Your task to perform on an android device: visit the assistant section in the google photos Image 0: 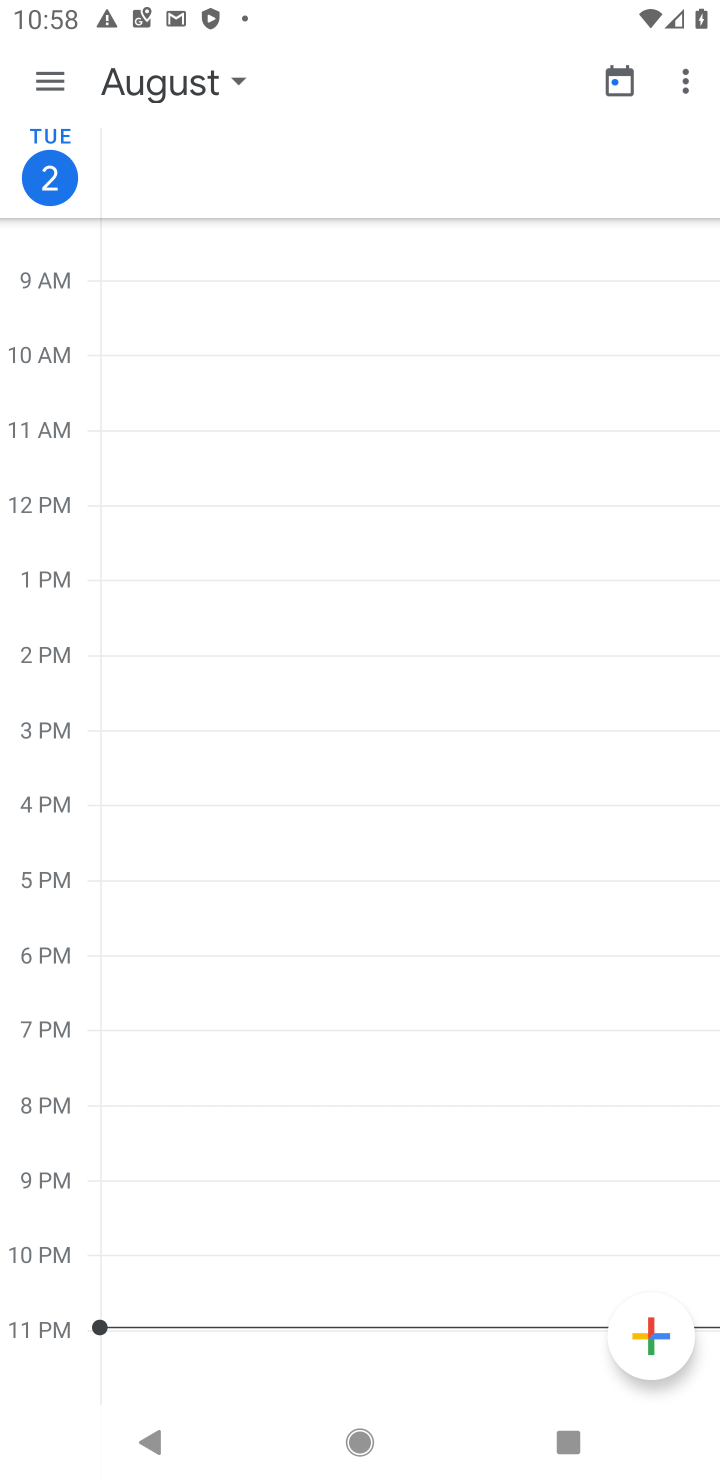
Step 0: drag from (300, 1053) to (548, 547)
Your task to perform on an android device: visit the assistant section in the google photos Image 1: 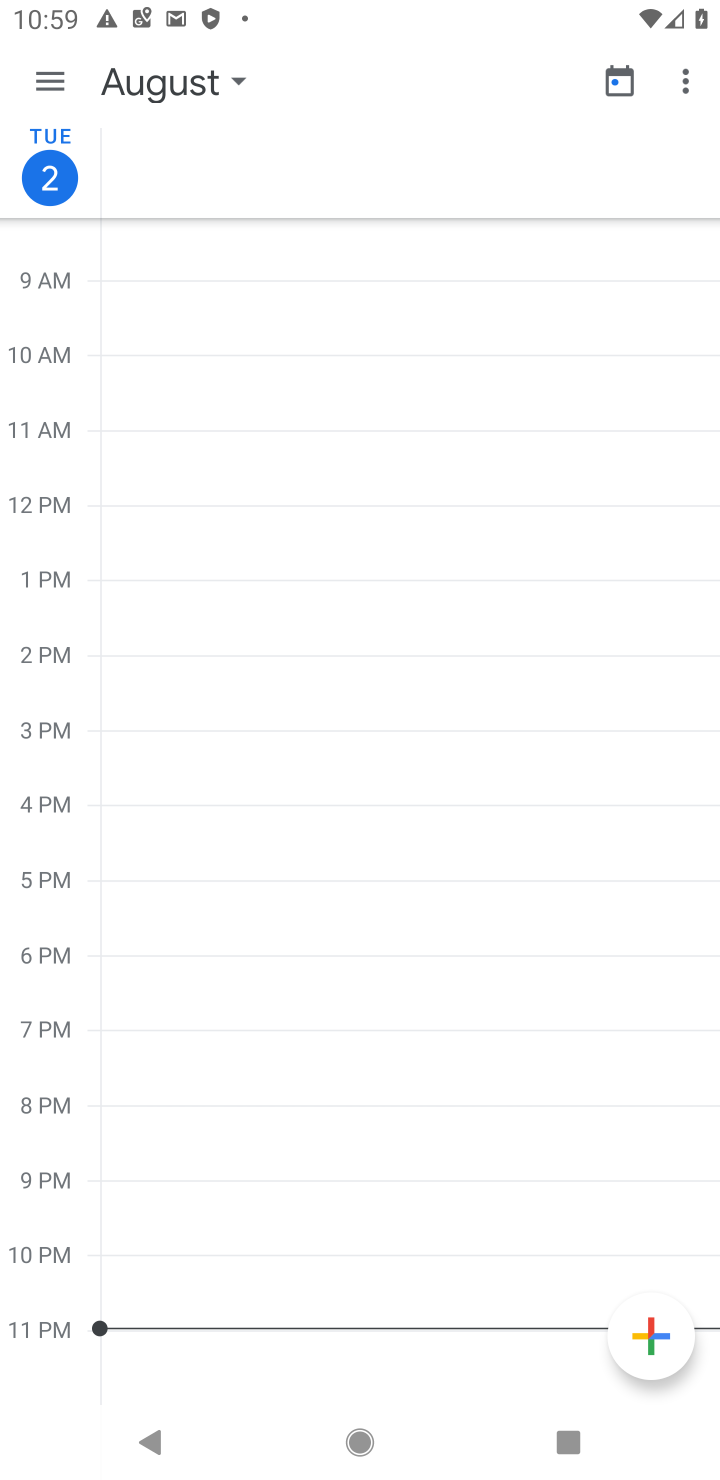
Step 1: press home button
Your task to perform on an android device: visit the assistant section in the google photos Image 2: 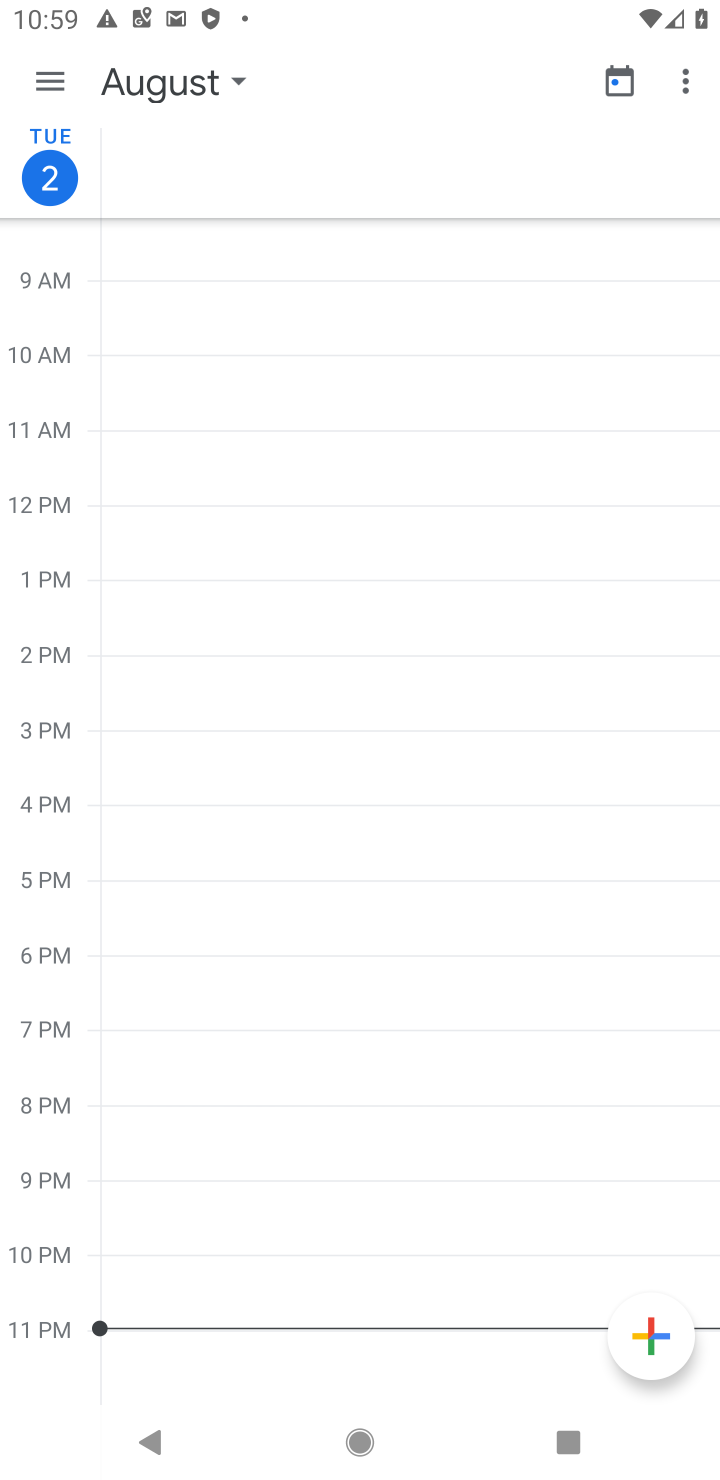
Step 2: press home button
Your task to perform on an android device: visit the assistant section in the google photos Image 3: 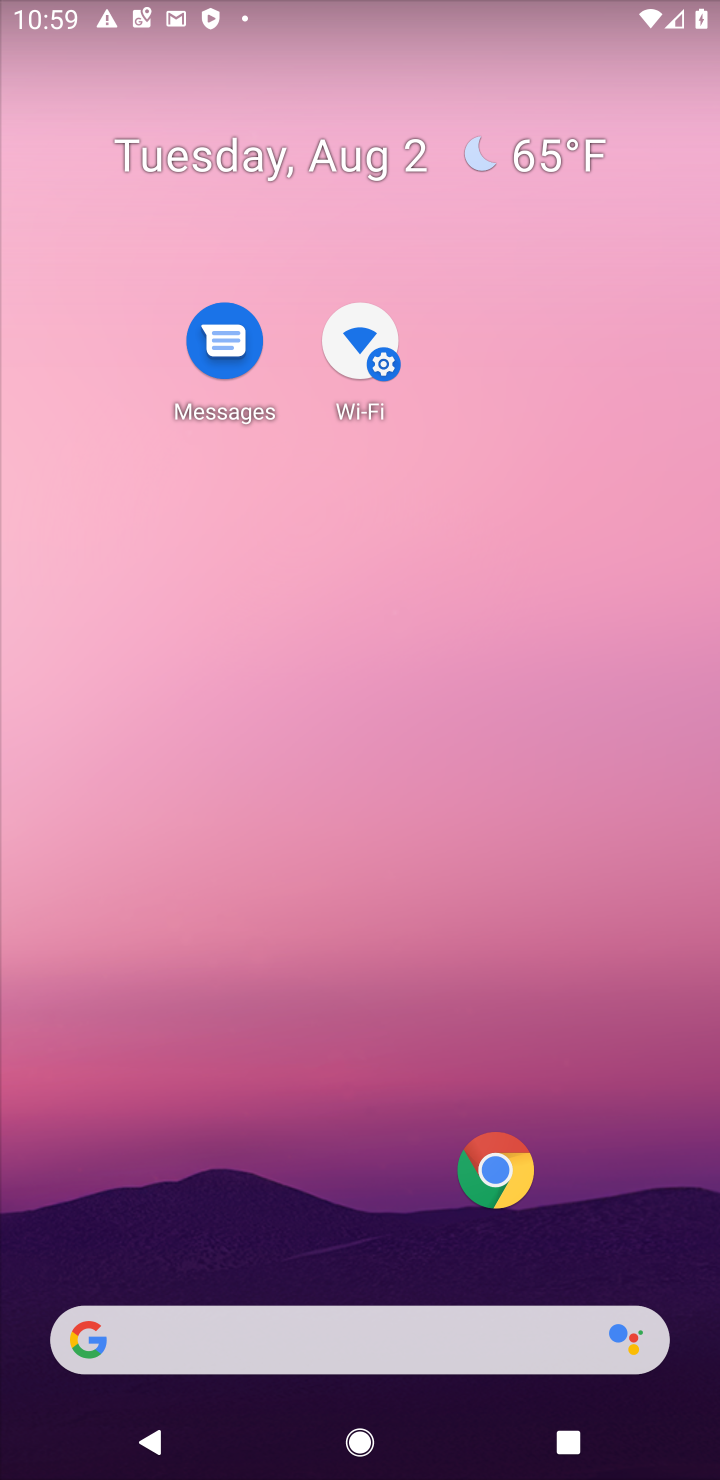
Step 3: drag from (371, 1286) to (462, 436)
Your task to perform on an android device: visit the assistant section in the google photos Image 4: 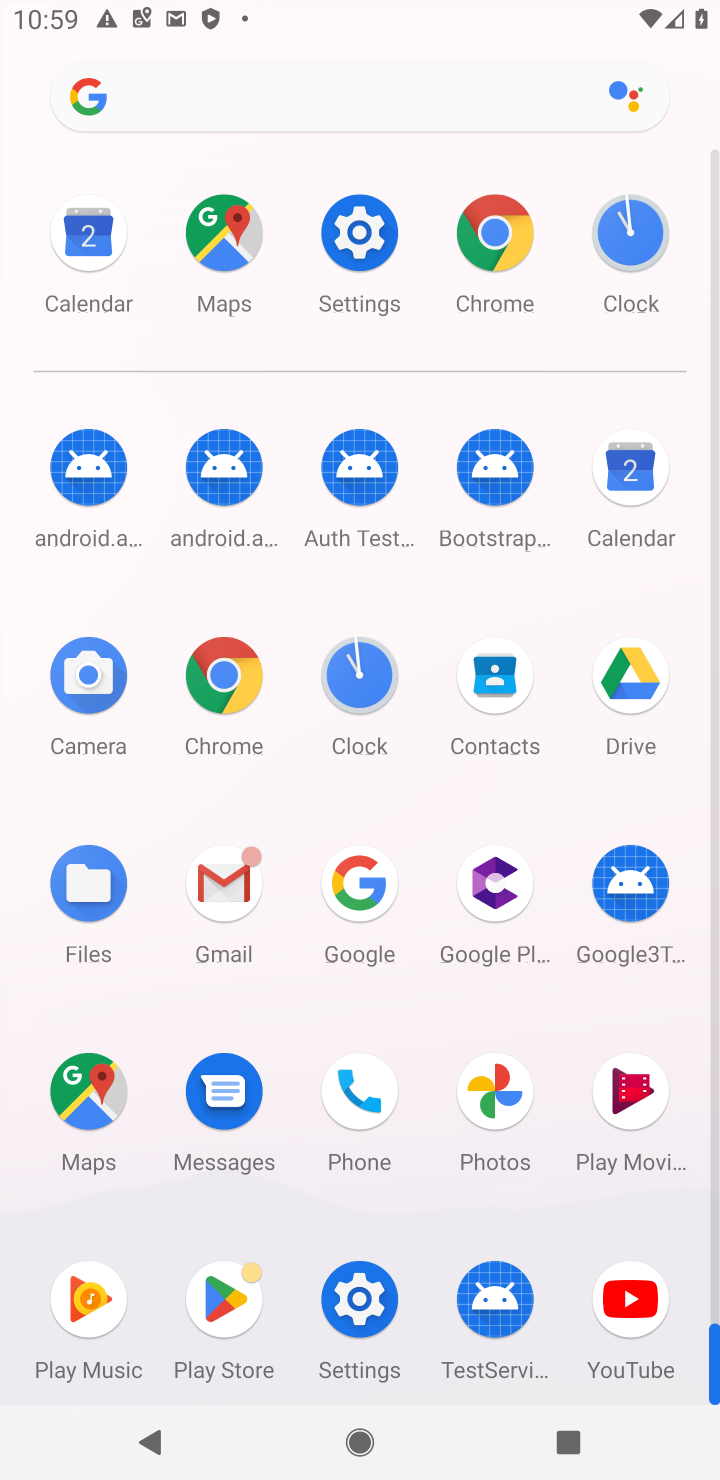
Step 4: click (521, 1075)
Your task to perform on an android device: visit the assistant section in the google photos Image 5: 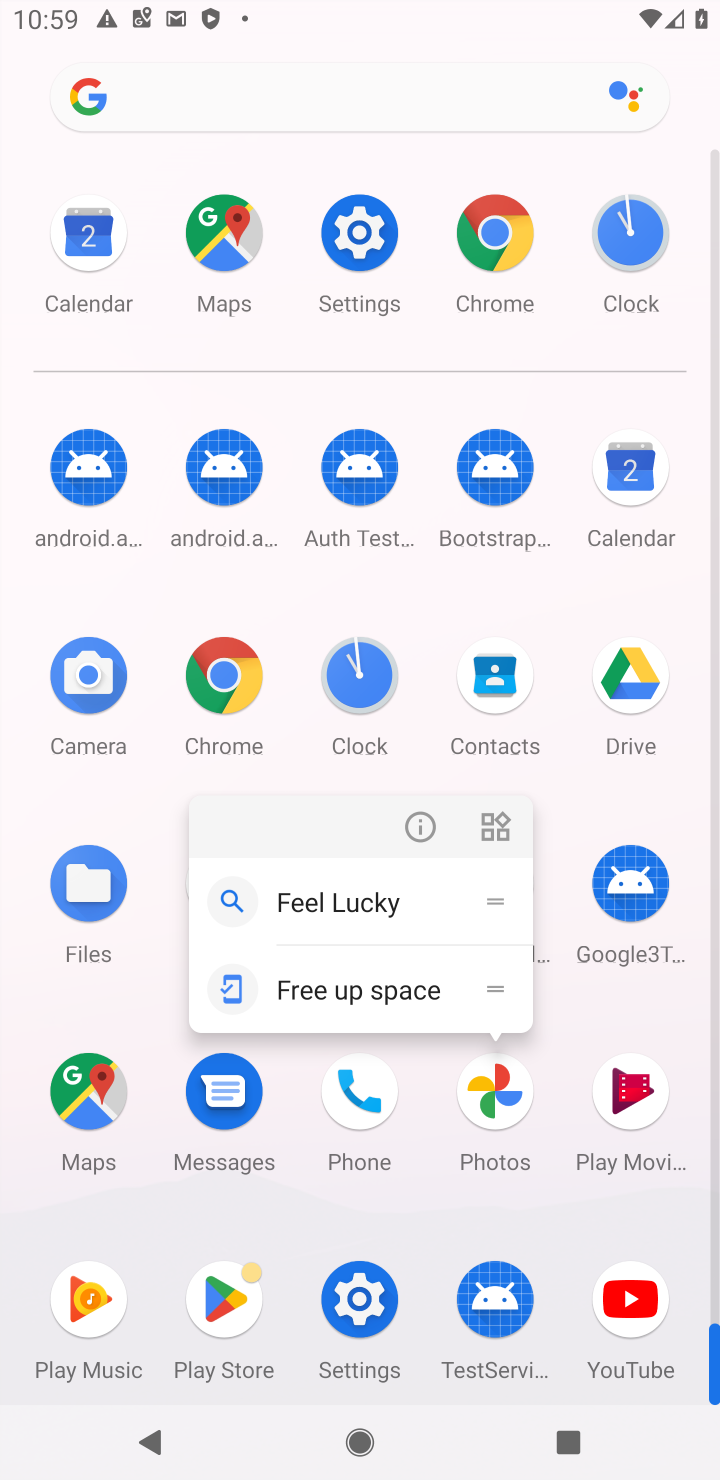
Step 5: click (413, 826)
Your task to perform on an android device: visit the assistant section in the google photos Image 6: 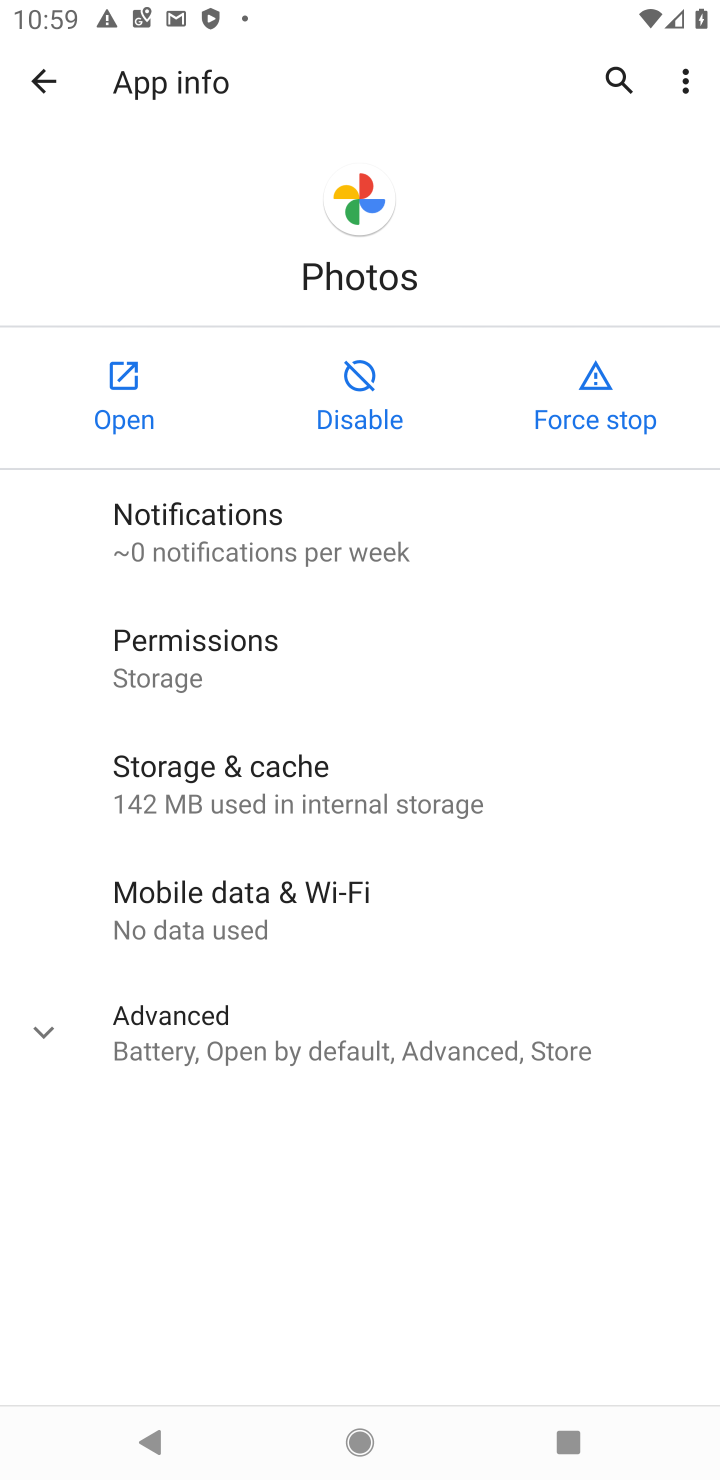
Step 6: click (113, 404)
Your task to perform on an android device: visit the assistant section in the google photos Image 7: 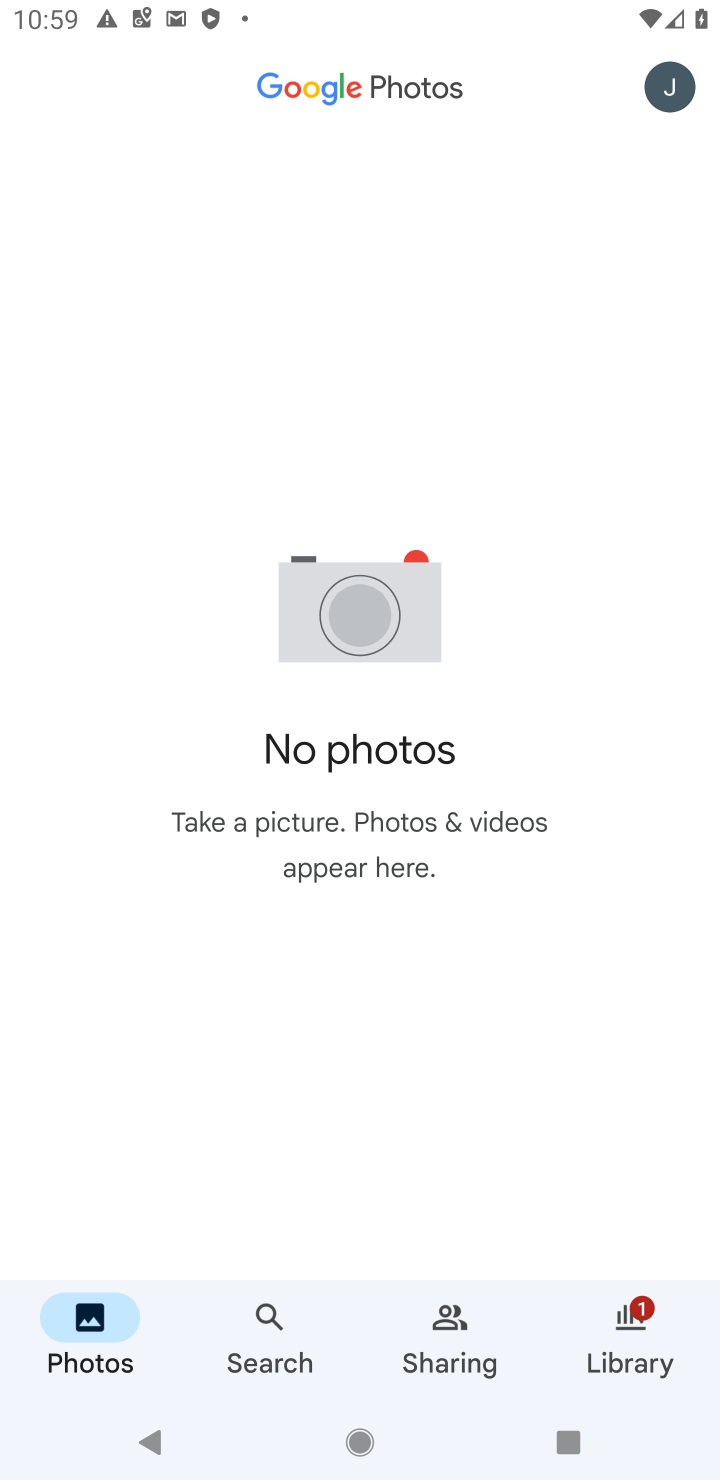
Step 7: drag from (394, 1093) to (444, 758)
Your task to perform on an android device: visit the assistant section in the google photos Image 8: 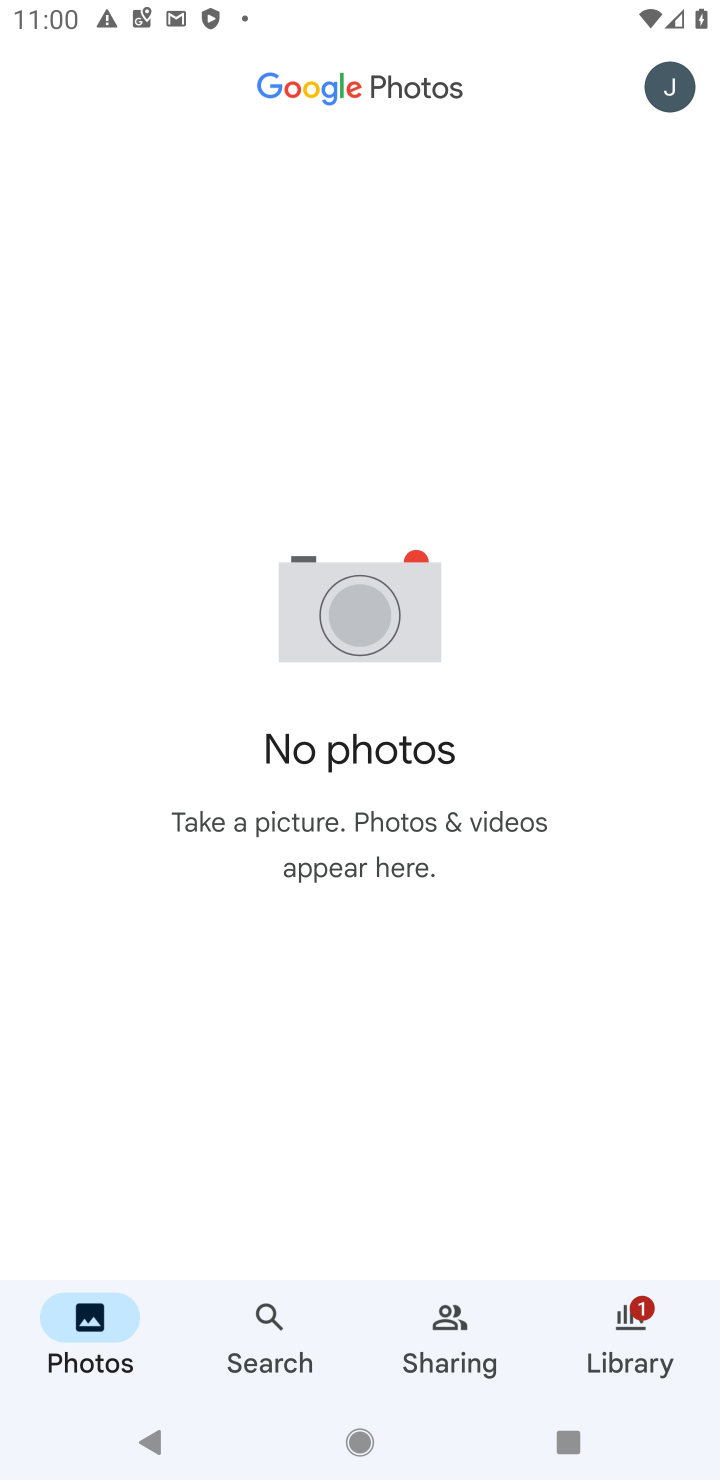
Step 8: drag from (447, 1134) to (455, 691)
Your task to perform on an android device: visit the assistant section in the google photos Image 9: 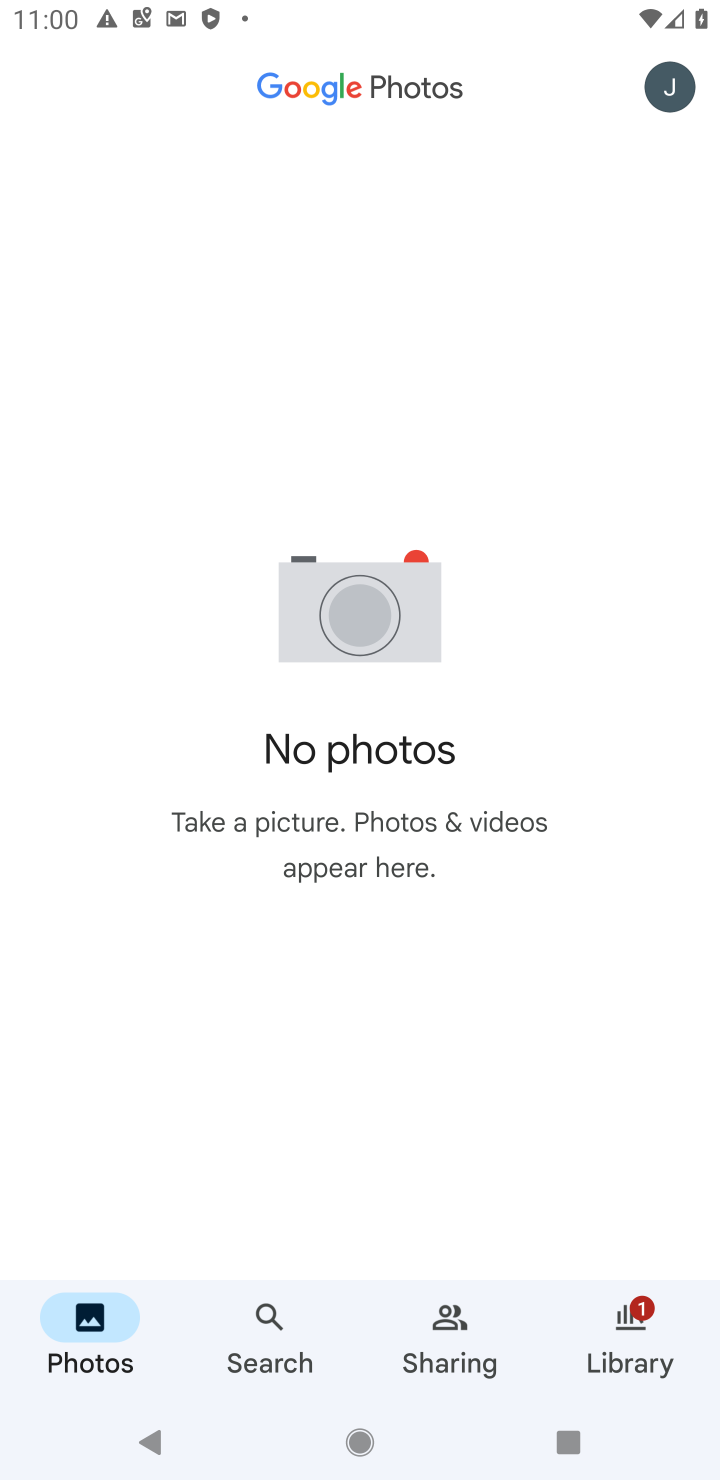
Step 9: drag from (365, 1071) to (490, 413)
Your task to perform on an android device: visit the assistant section in the google photos Image 10: 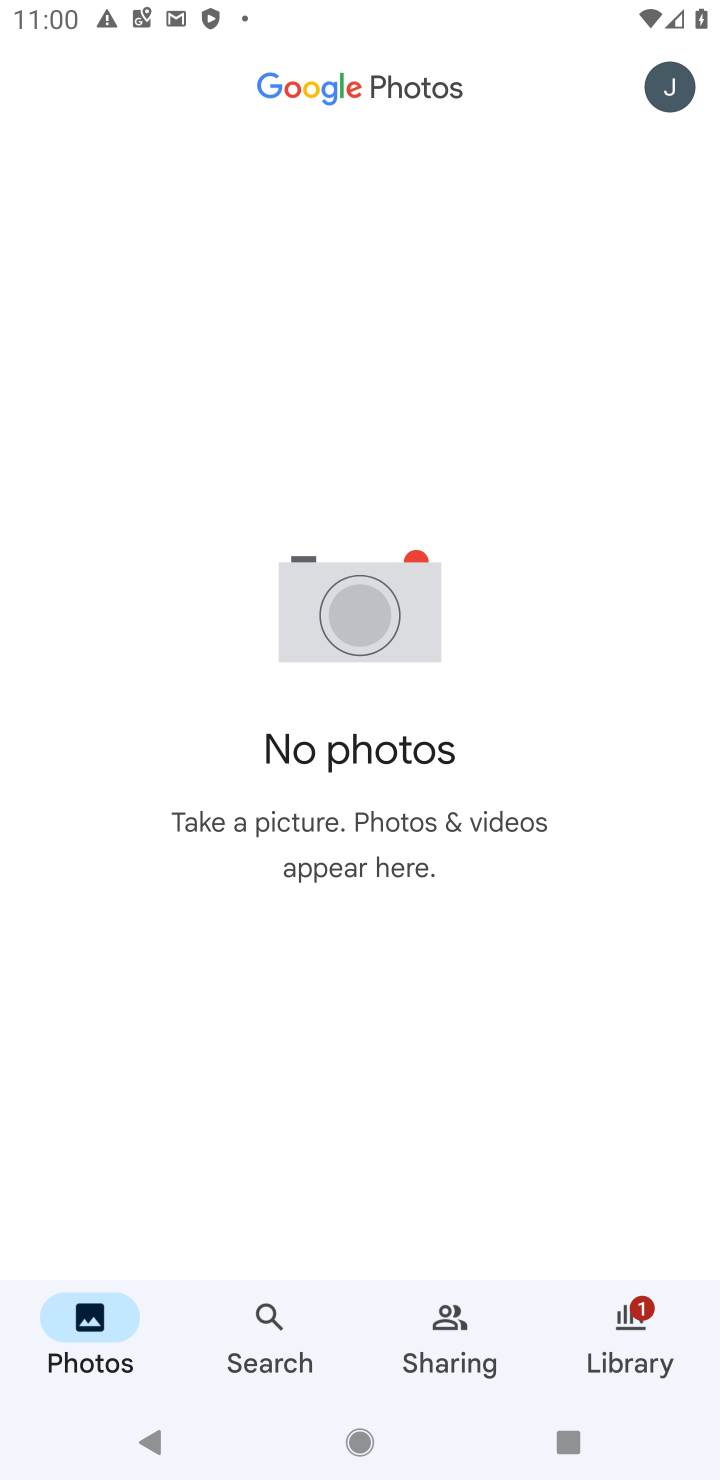
Step 10: press home button
Your task to perform on an android device: visit the assistant section in the google photos Image 11: 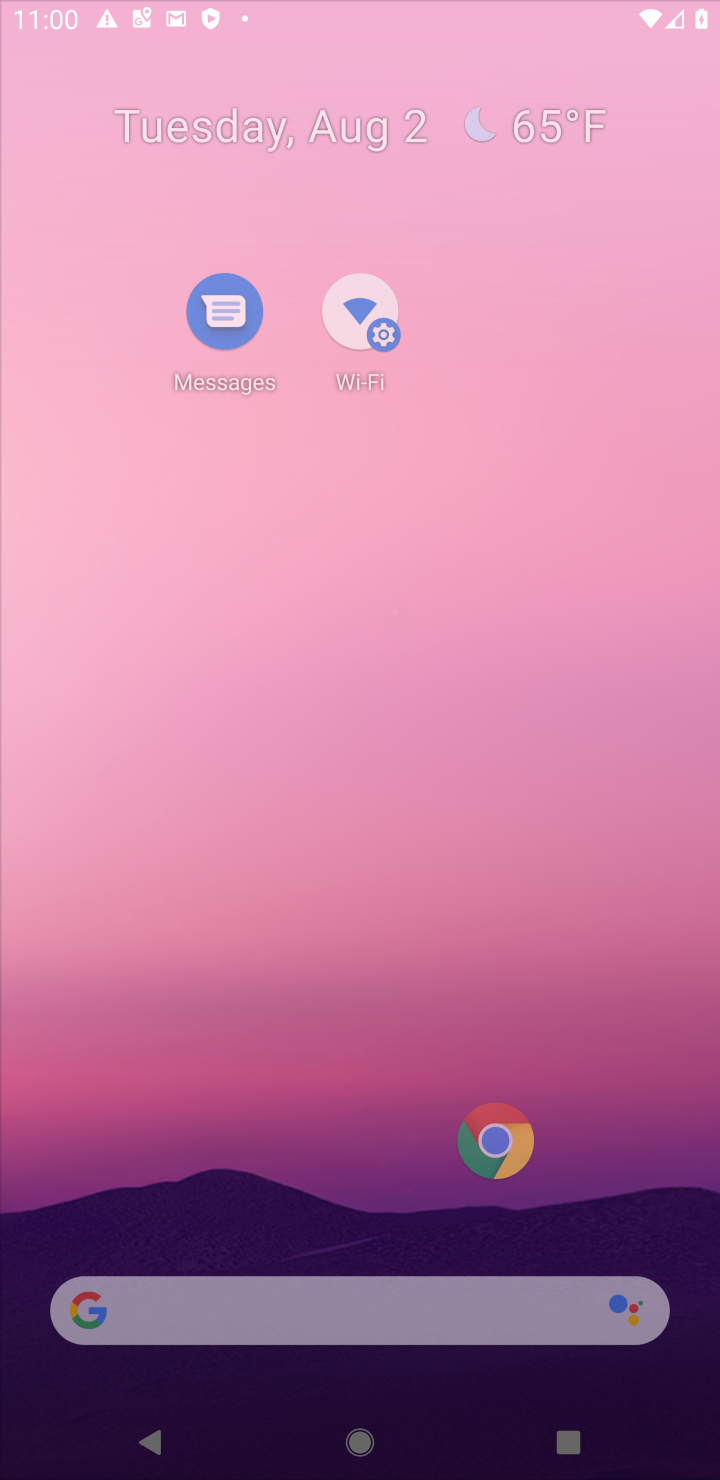
Step 11: click (576, 471)
Your task to perform on an android device: visit the assistant section in the google photos Image 12: 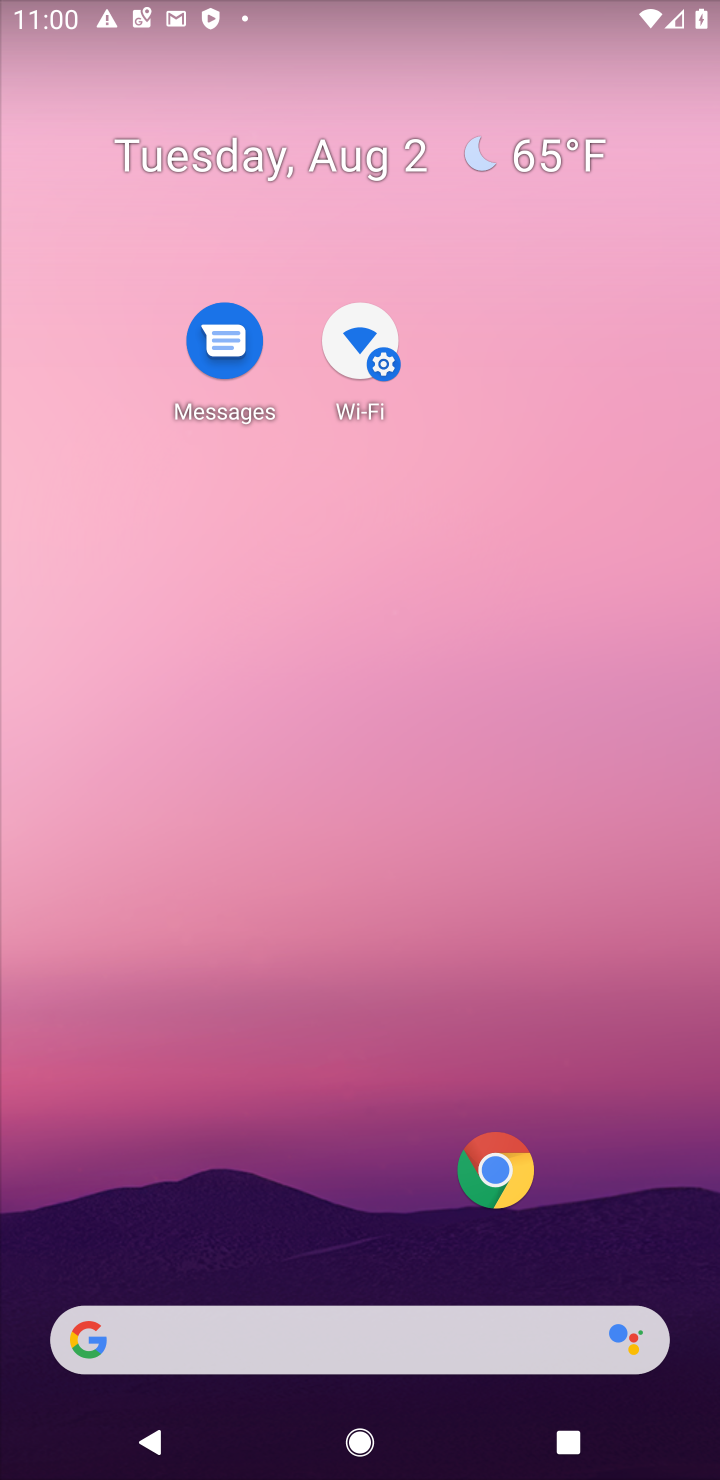
Step 12: drag from (354, 1199) to (395, 324)
Your task to perform on an android device: visit the assistant section in the google photos Image 13: 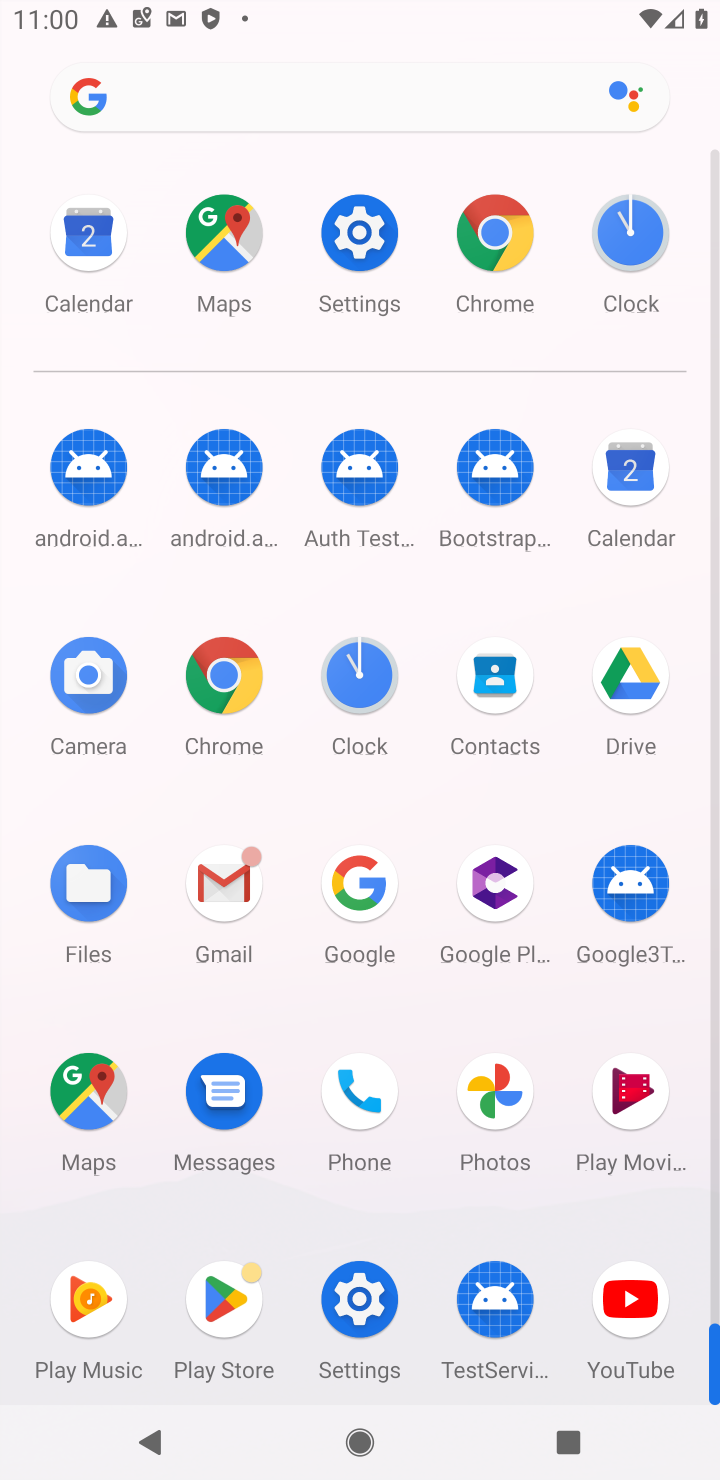
Step 13: drag from (578, 1165) to (436, 691)
Your task to perform on an android device: visit the assistant section in the google photos Image 14: 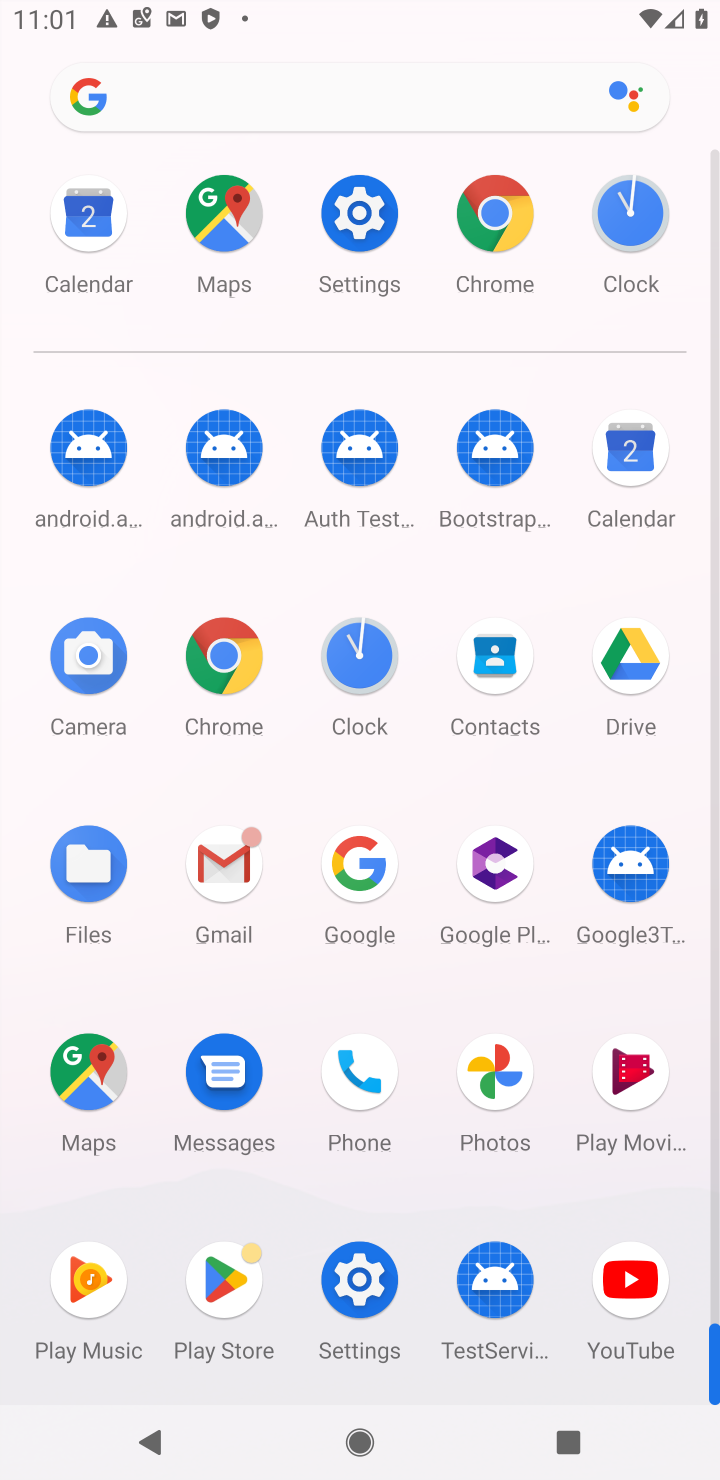
Step 14: click (494, 1086)
Your task to perform on an android device: visit the assistant section in the google photos Image 15: 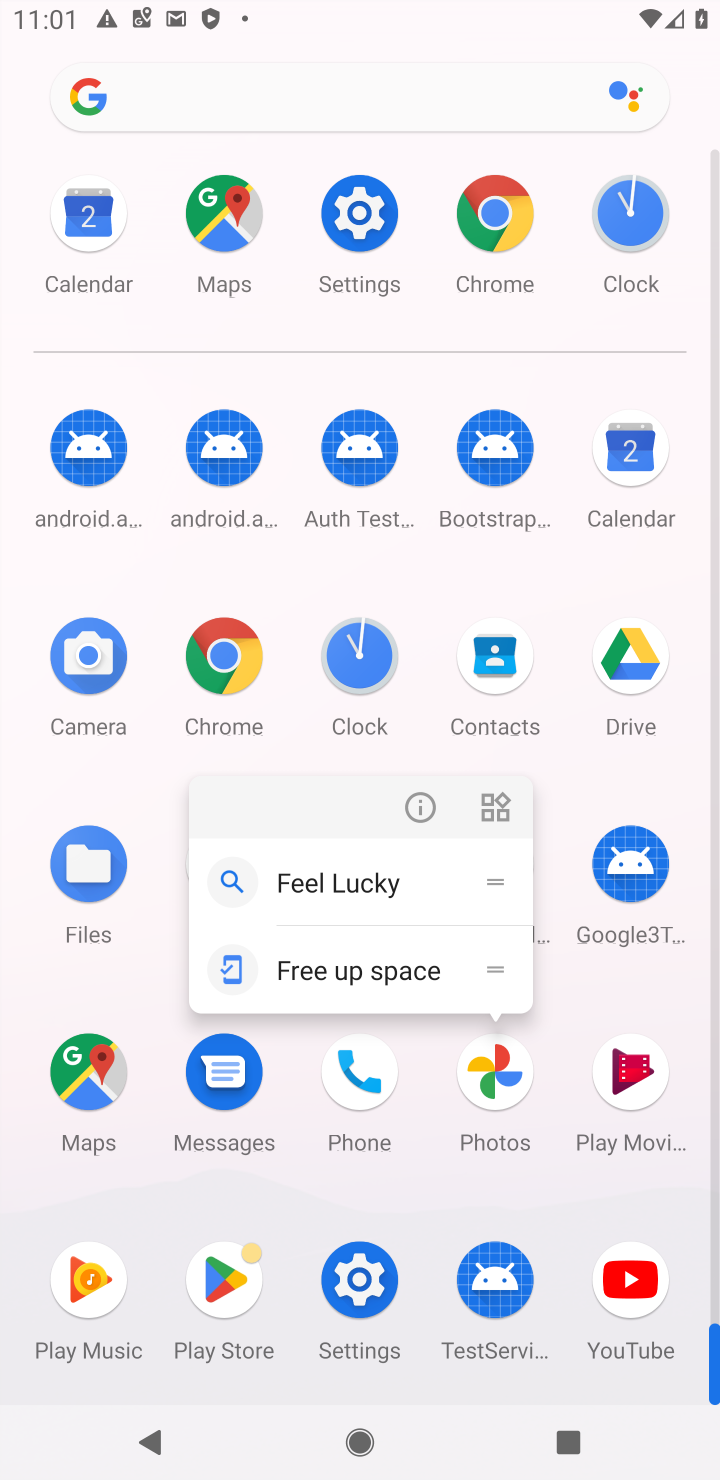
Step 15: click (431, 797)
Your task to perform on an android device: visit the assistant section in the google photos Image 16: 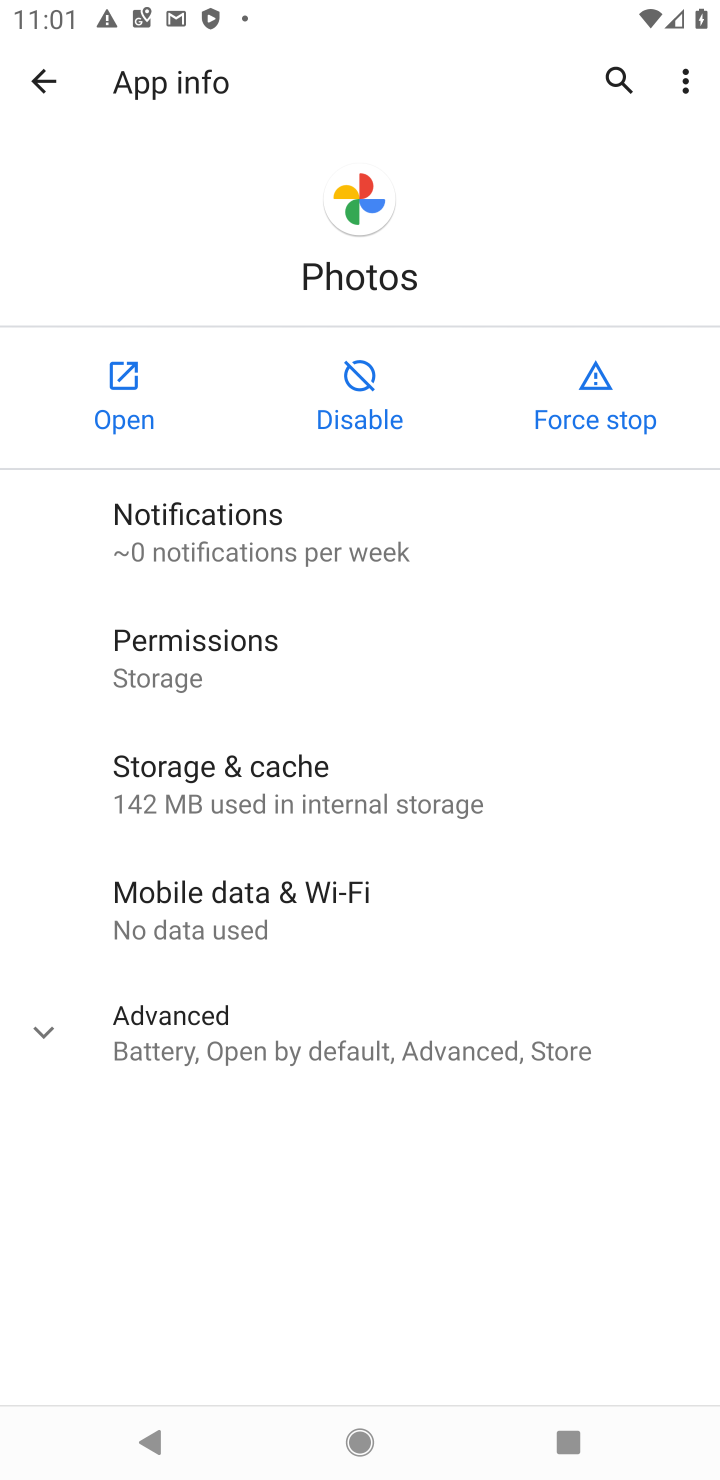
Step 16: task complete